Your task to perform on an android device: check android version Image 0: 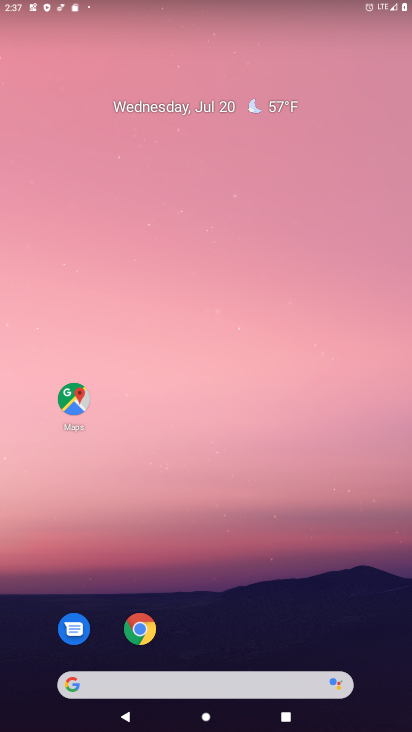
Step 0: drag from (364, 645) to (361, 68)
Your task to perform on an android device: check android version Image 1: 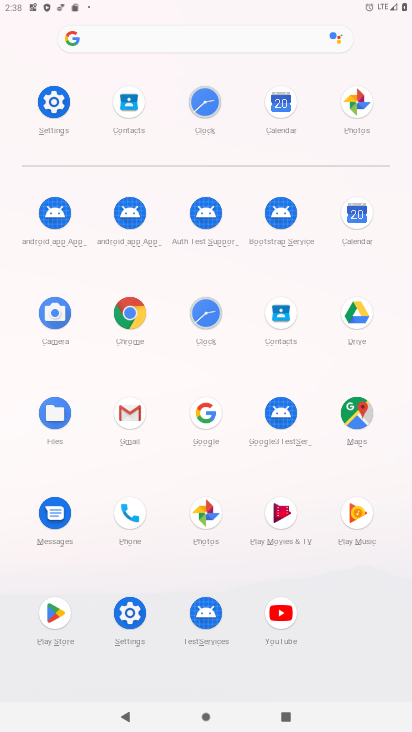
Step 1: click (128, 614)
Your task to perform on an android device: check android version Image 2: 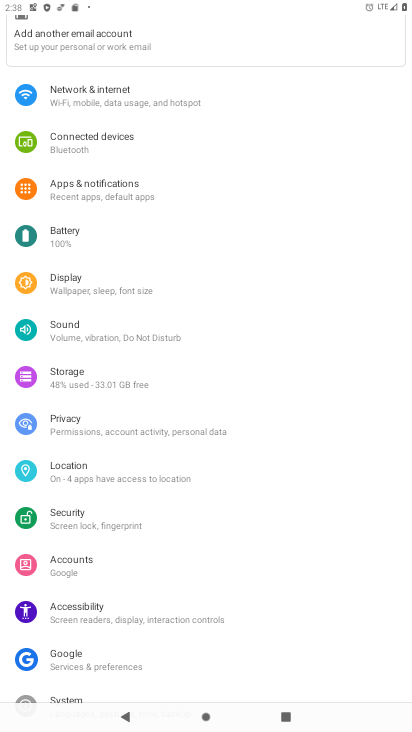
Step 2: drag from (328, 645) to (282, 101)
Your task to perform on an android device: check android version Image 3: 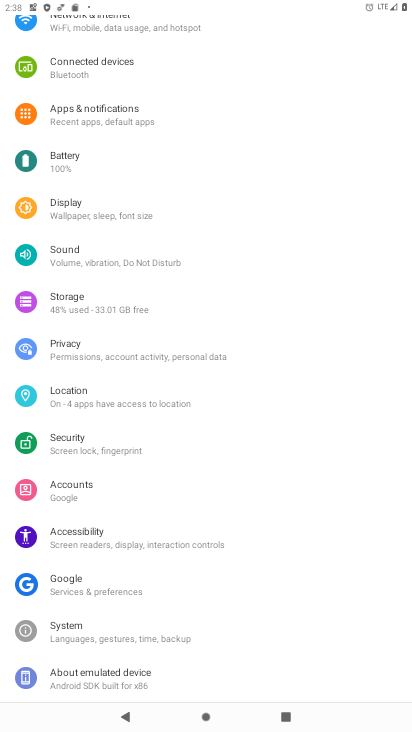
Step 3: click (98, 681)
Your task to perform on an android device: check android version Image 4: 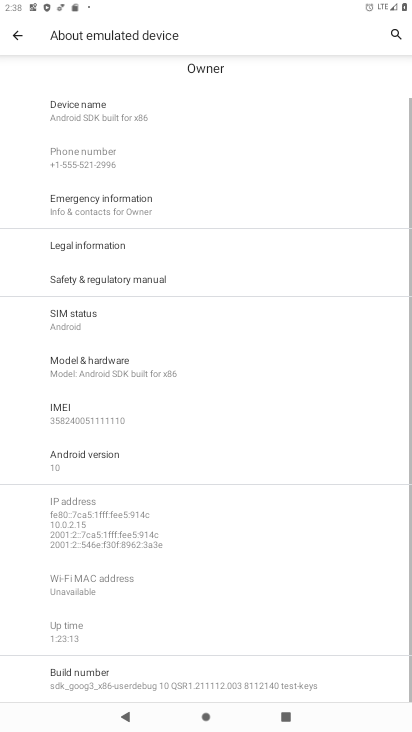
Step 4: click (66, 456)
Your task to perform on an android device: check android version Image 5: 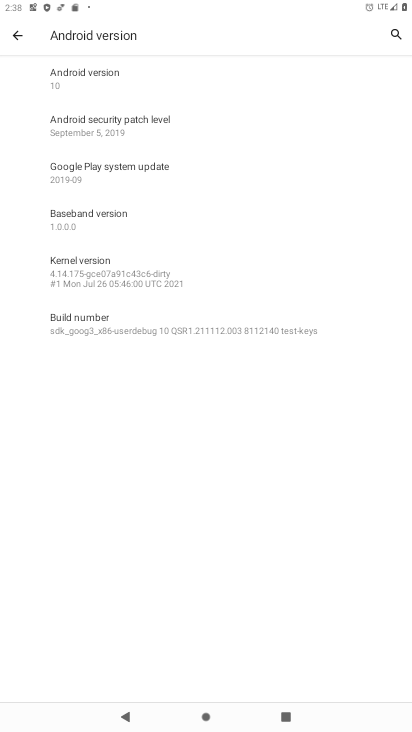
Step 5: click (81, 73)
Your task to perform on an android device: check android version Image 6: 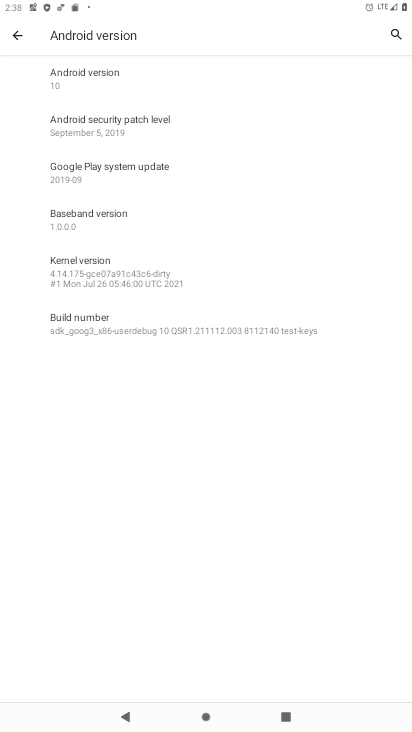
Step 6: task complete